Your task to perform on an android device: Open Wikipedia Image 0: 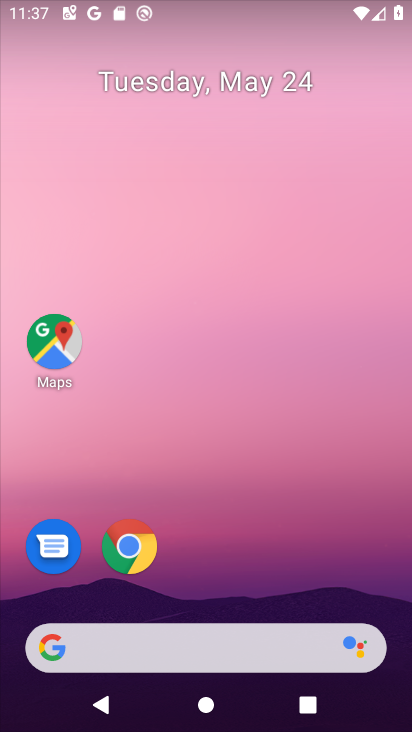
Step 0: drag from (217, 556) to (270, 2)
Your task to perform on an android device: Open Wikipedia Image 1: 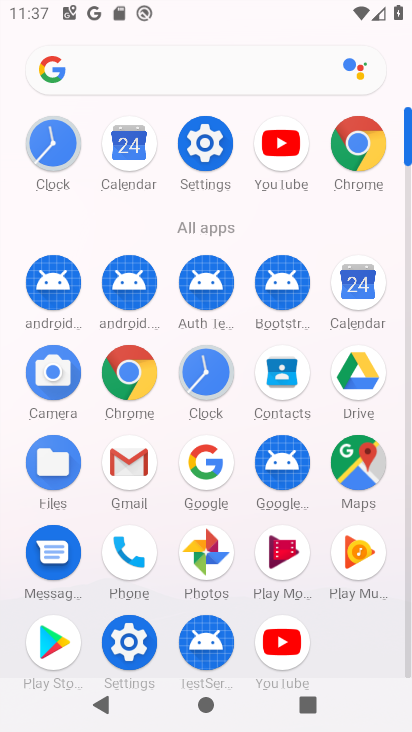
Step 1: click (132, 389)
Your task to perform on an android device: Open Wikipedia Image 2: 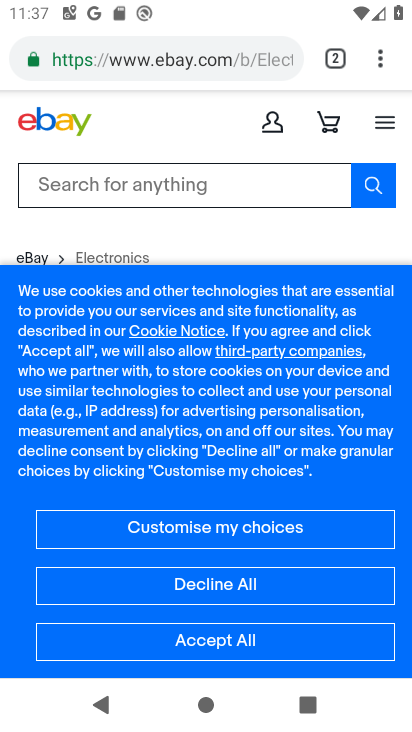
Step 2: click (197, 62)
Your task to perform on an android device: Open Wikipedia Image 3: 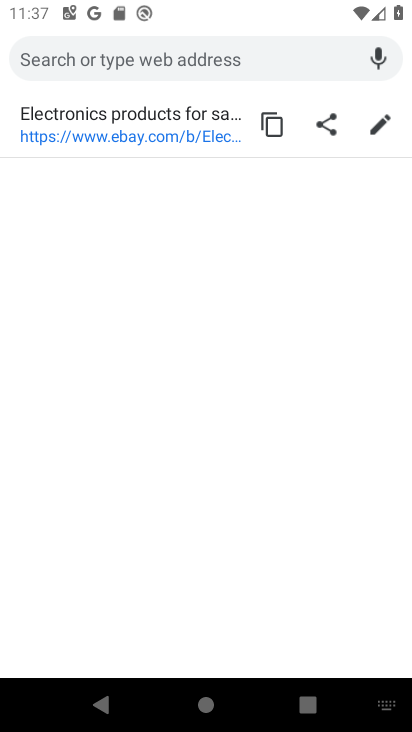
Step 3: type "wiikipedia"
Your task to perform on an android device: Open Wikipedia Image 4: 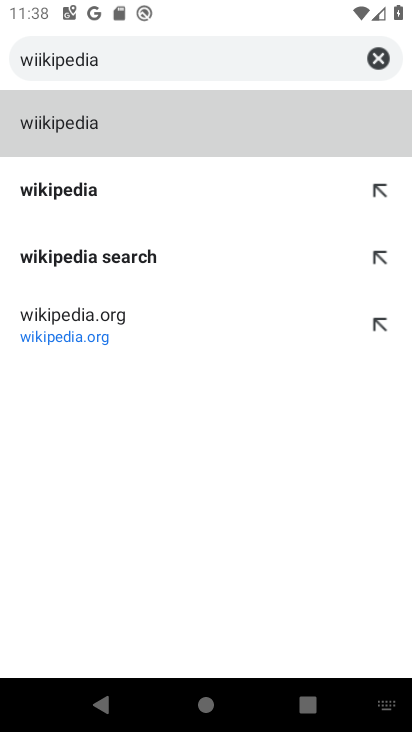
Step 4: click (145, 129)
Your task to perform on an android device: Open Wikipedia Image 5: 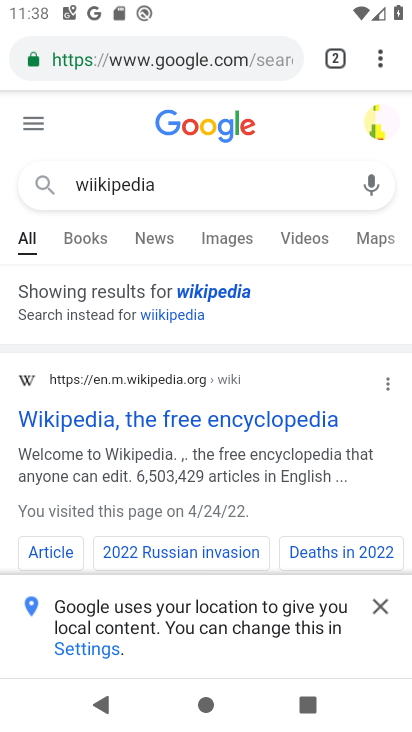
Step 5: task complete